Your task to perform on an android device: Play the last video I watched on Youtube Image 0: 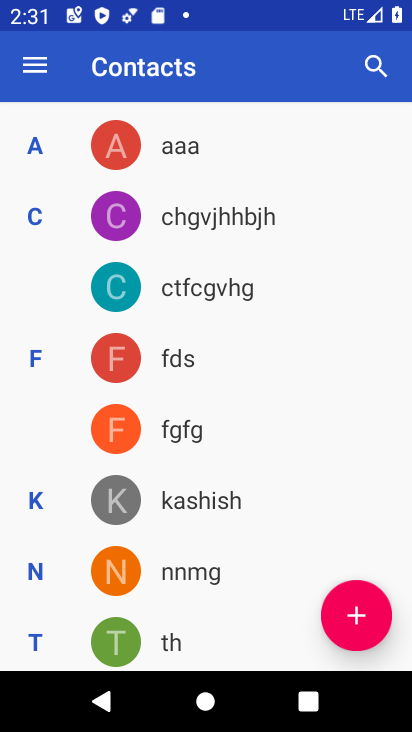
Step 0: press home button
Your task to perform on an android device: Play the last video I watched on Youtube Image 1: 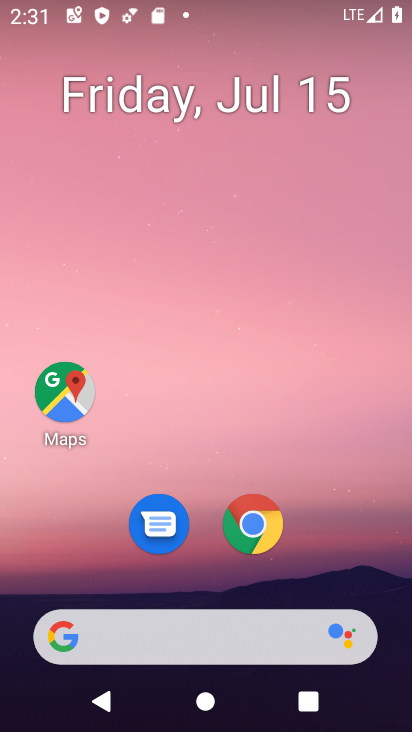
Step 1: drag from (208, 644) to (247, 114)
Your task to perform on an android device: Play the last video I watched on Youtube Image 2: 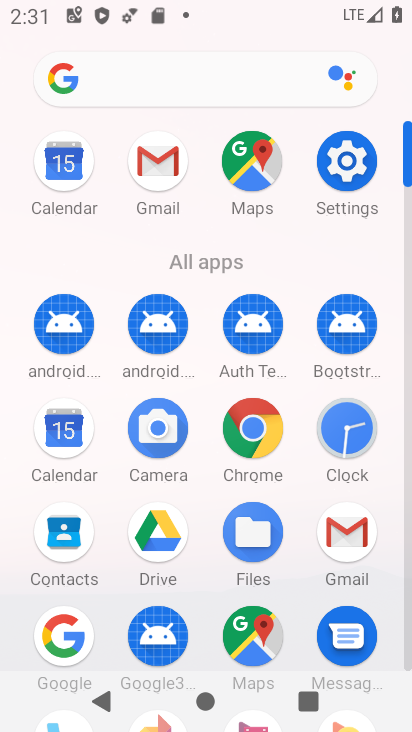
Step 2: drag from (291, 603) to (302, 114)
Your task to perform on an android device: Play the last video I watched on Youtube Image 3: 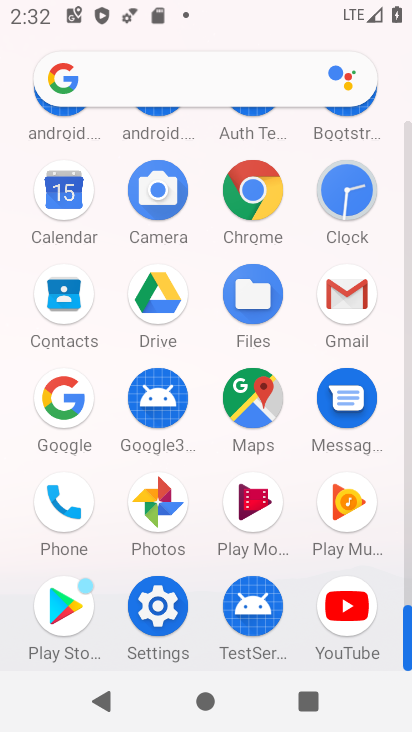
Step 3: click (338, 616)
Your task to perform on an android device: Play the last video I watched on Youtube Image 4: 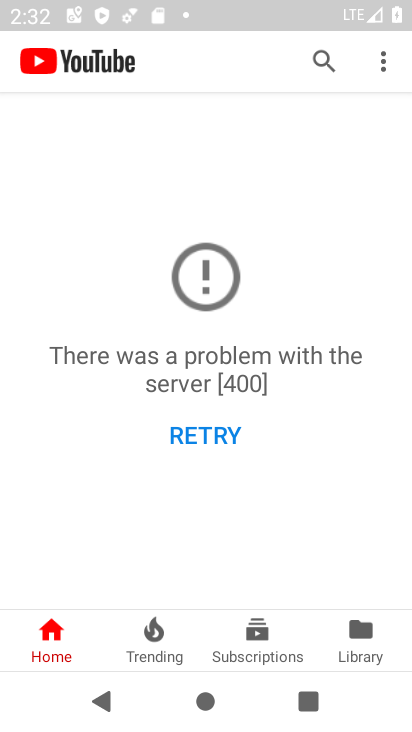
Step 4: click (213, 432)
Your task to perform on an android device: Play the last video I watched on Youtube Image 5: 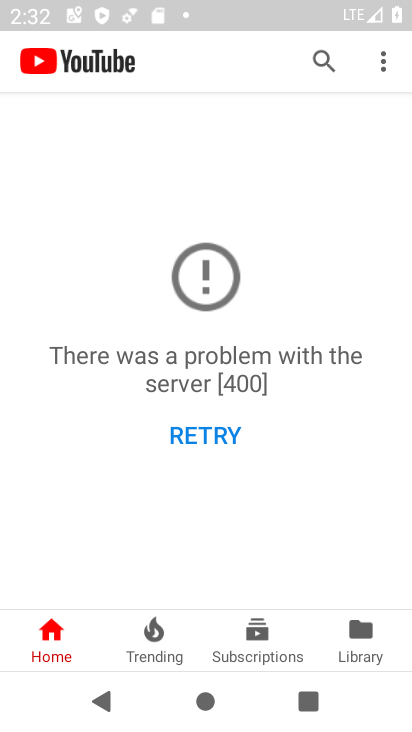
Step 5: click (206, 433)
Your task to perform on an android device: Play the last video I watched on Youtube Image 6: 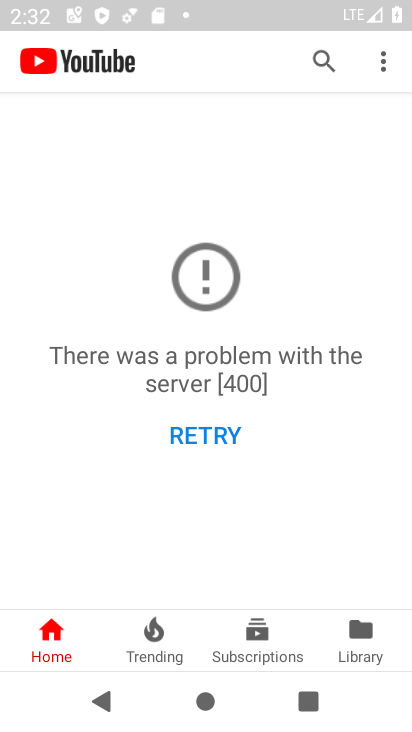
Step 6: click (188, 442)
Your task to perform on an android device: Play the last video I watched on Youtube Image 7: 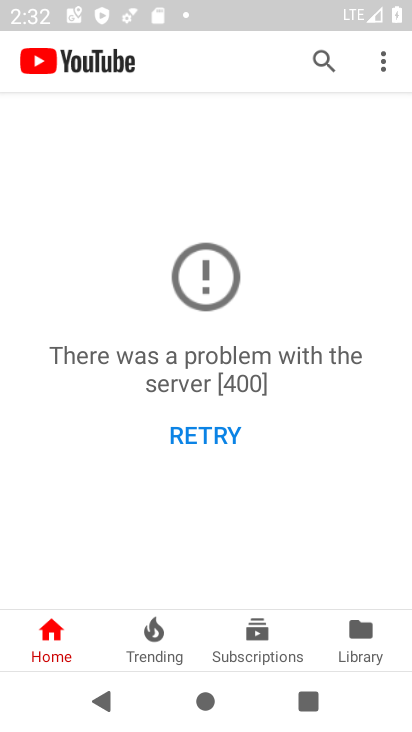
Step 7: click (209, 423)
Your task to perform on an android device: Play the last video I watched on Youtube Image 8: 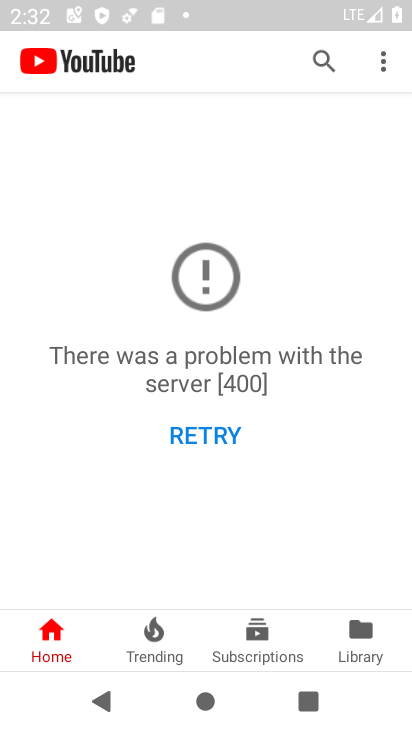
Step 8: task complete